Your task to perform on an android device: change timer sound Image 0: 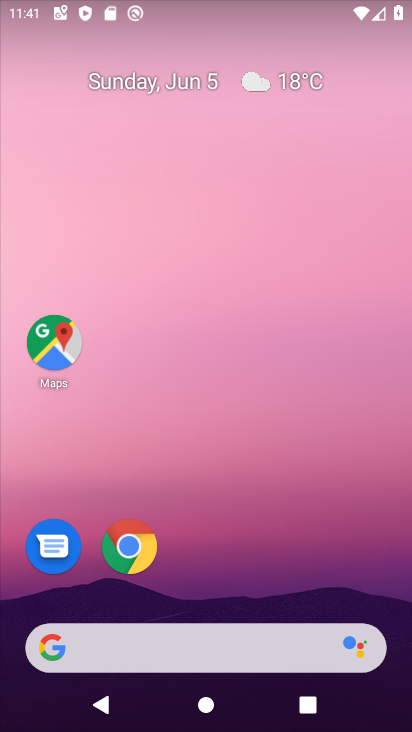
Step 0: drag from (293, 591) to (289, 170)
Your task to perform on an android device: change timer sound Image 1: 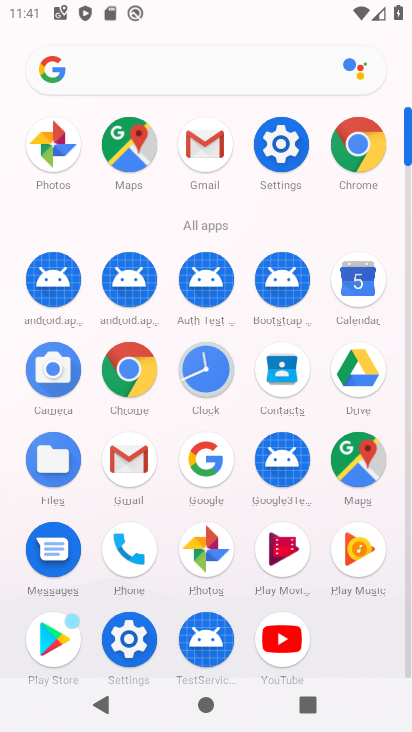
Step 1: click (196, 372)
Your task to perform on an android device: change timer sound Image 2: 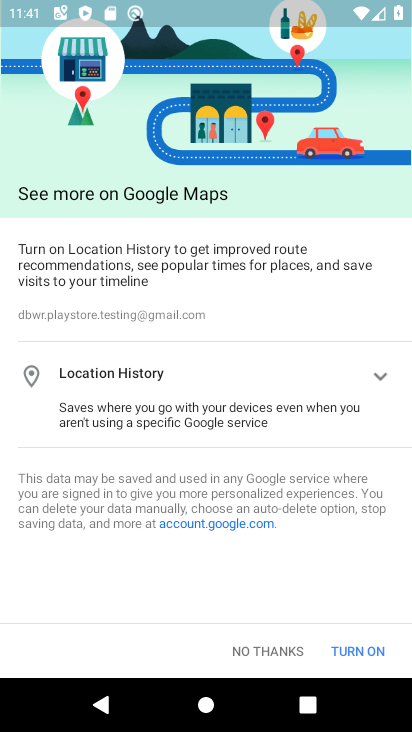
Step 2: click (264, 646)
Your task to perform on an android device: change timer sound Image 3: 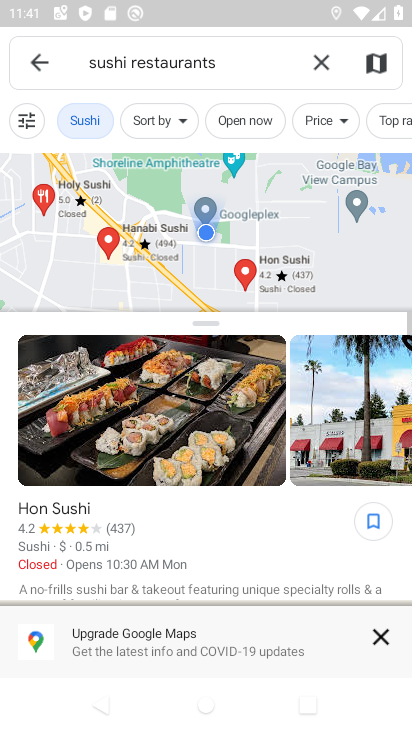
Step 3: click (323, 58)
Your task to perform on an android device: change timer sound Image 4: 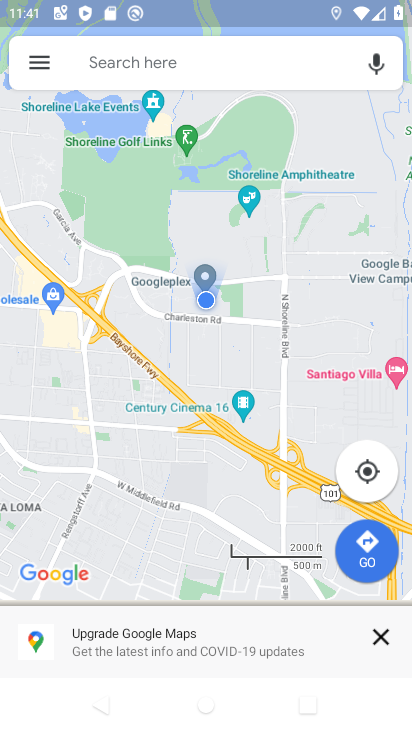
Step 4: press home button
Your task to perform on an android device: change timer sound Image 5: 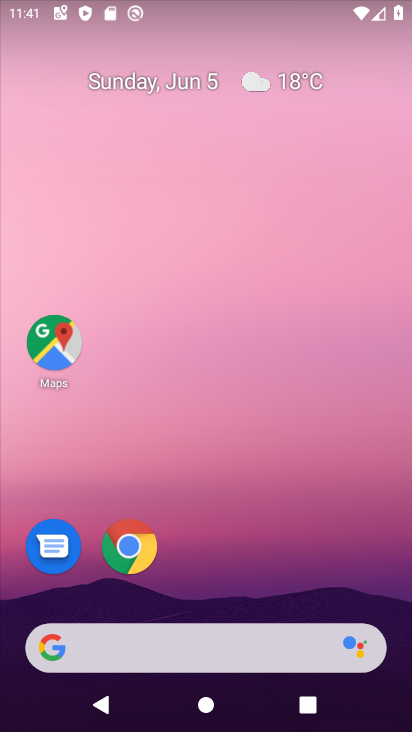
Step 5: drag from (239, 539) to (238, 171)
Your task to perform on an android device: change timer sound Image 6: 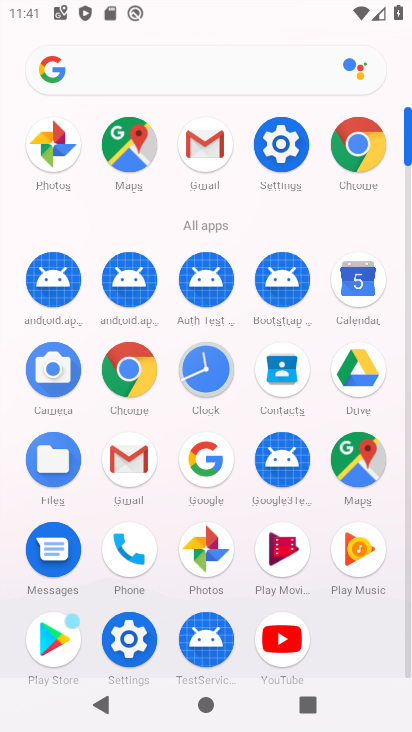
Step 6: click (199, 368)
Your task to perform on an android device: change timer sound Image 7: 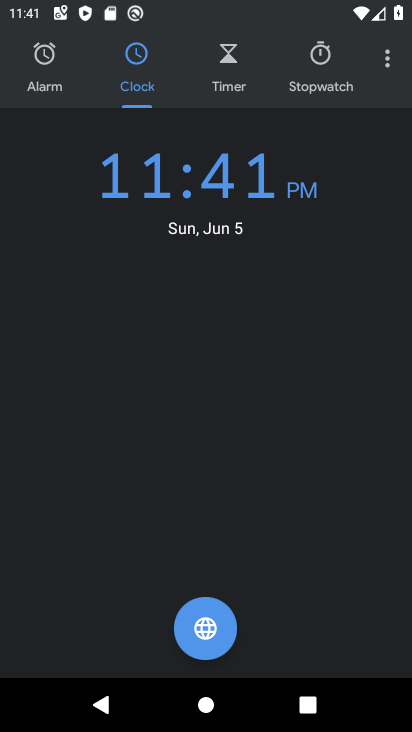
Step 7: click (378, 66)
Your task to perform on an android device: change timer sound Image 8: 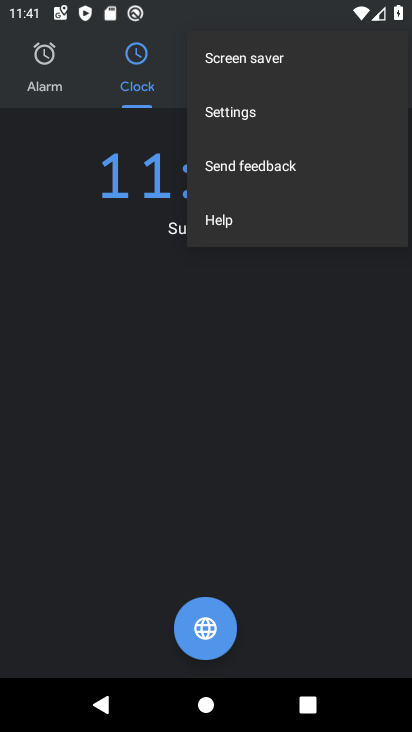
Step 8: click (247, 116)
Your task to perform on an android device: change timer sound Image 9: 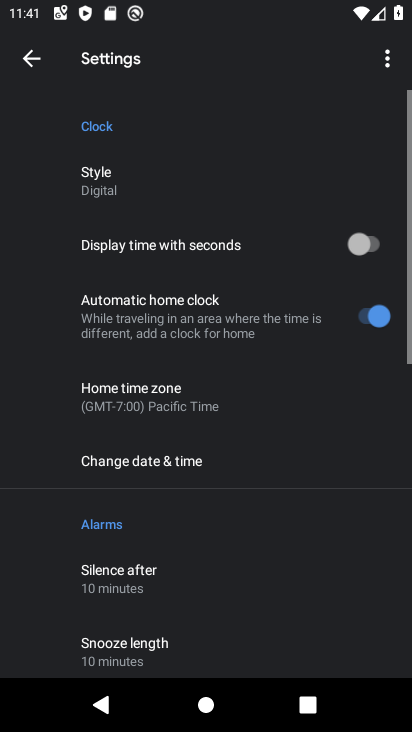
Step 9: drag from (200, 528) to (244, 215)
Your task to perform on an android device: change timer sound Image 10: 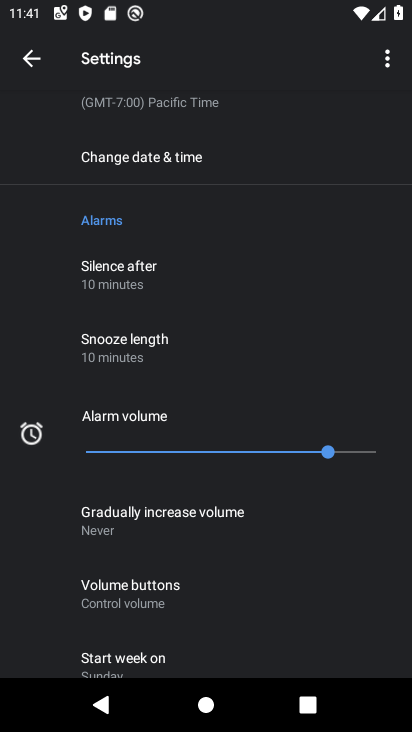
Step 10: drag from (169, 534) to (207, 233)
Your task to perform on an android device: change timer sound Image 11: 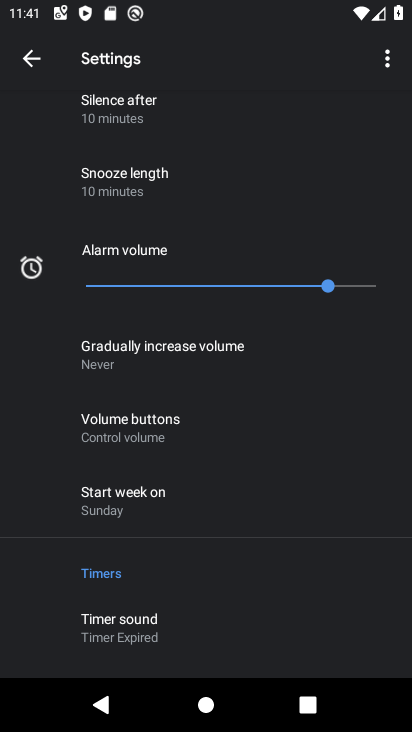
Step 11: click (167, 619)
Your task to perform on an android device: change timer sound Image 12: 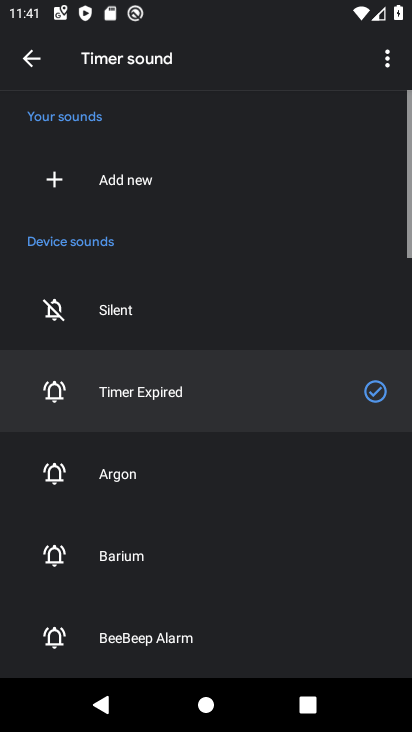
Step 12: drag from (239, 522) to (223, 229)
Your task to perform on an android device: change timer sound Image 13: 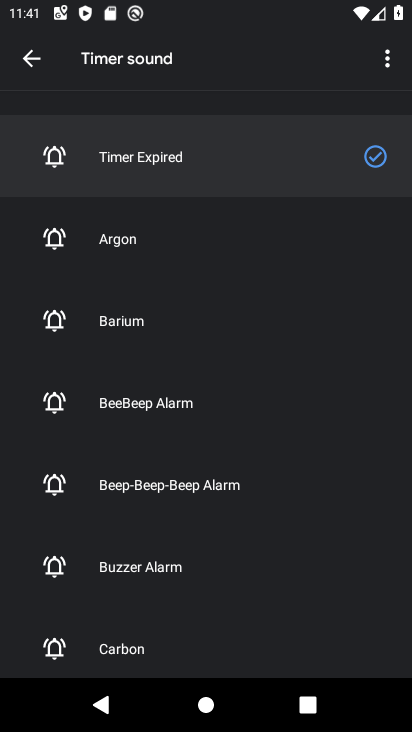
Step 13: click (172, 482)
Your task to perform on an android device: change timer sound Image 14: 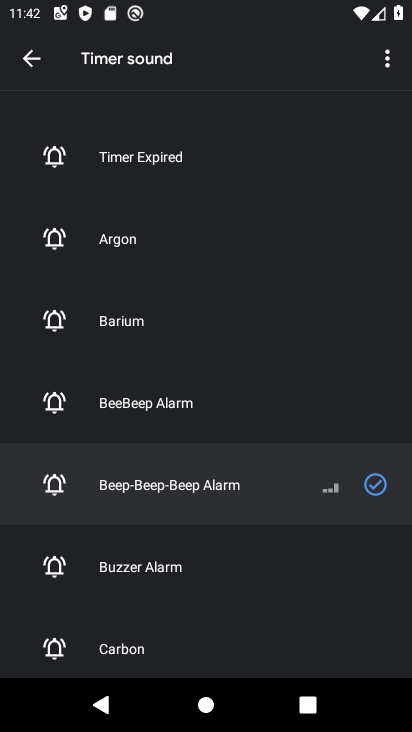
Step 14: task complete